Your task to perform on an android device: toggle notification dots Image 0: 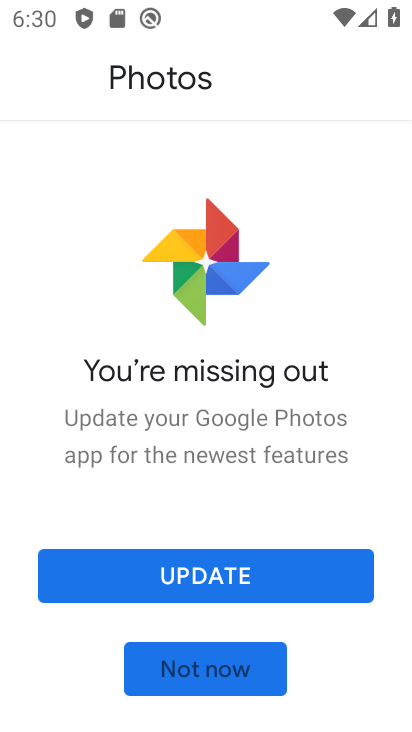
Step 0: press home button
Your task to perform on an android device: toggle notification dots Image 1: 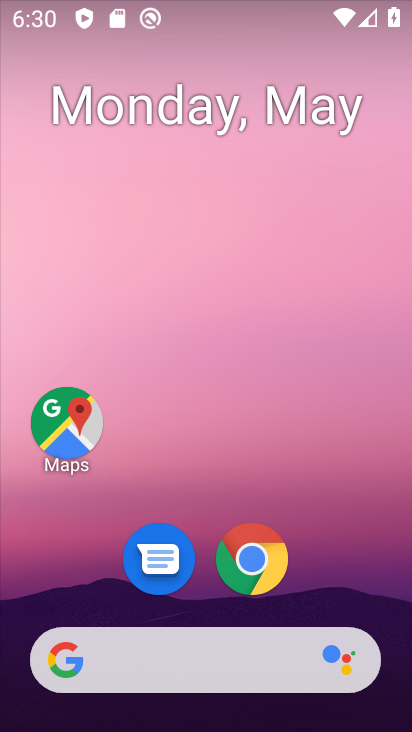
Step 1: drag from (395, 677) to (310, 11)
Your task to perform on an android device: toggle notification dots Image 2: 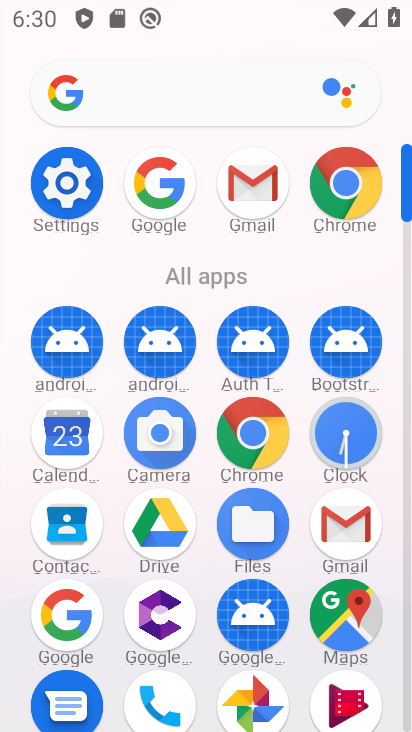
Step 2: click (72, 201)
Your task to perform on an android device: toggle notification dots Image 3: 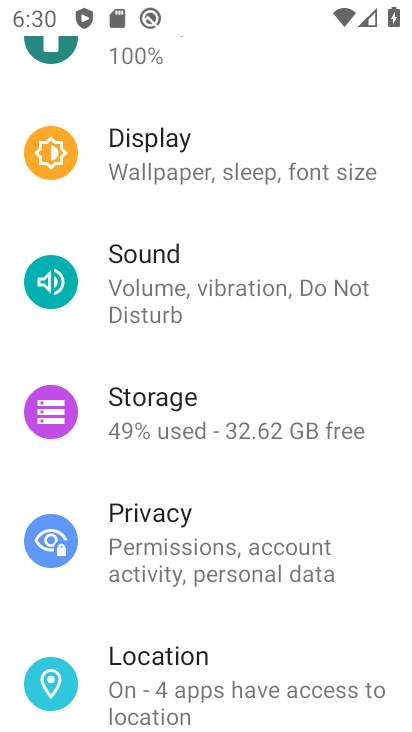
Step 3: drag from (302, 109) to (282, 551)
Your task to perform on an android device: toggle notification dots Image 4: 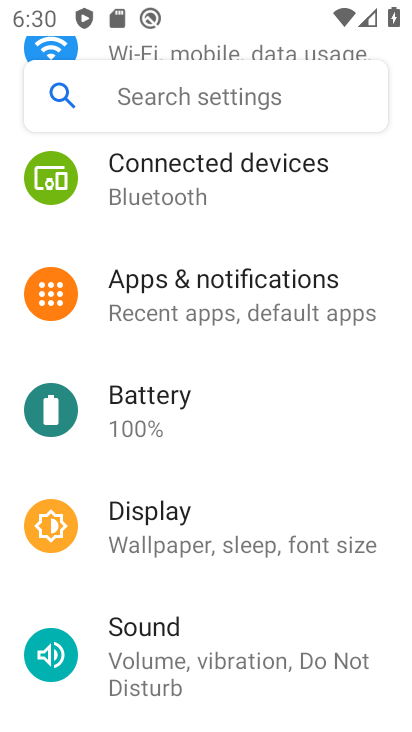
Step 4: click (239, 279)
Your task to perform on an android device: toggle notification dots Image 5: 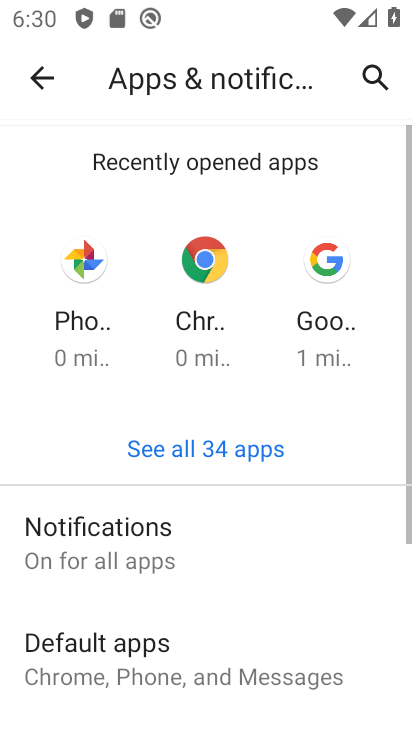
Step 5: click (198, 529)
Your task to perform on an android device: toggle notification dots Image 6: 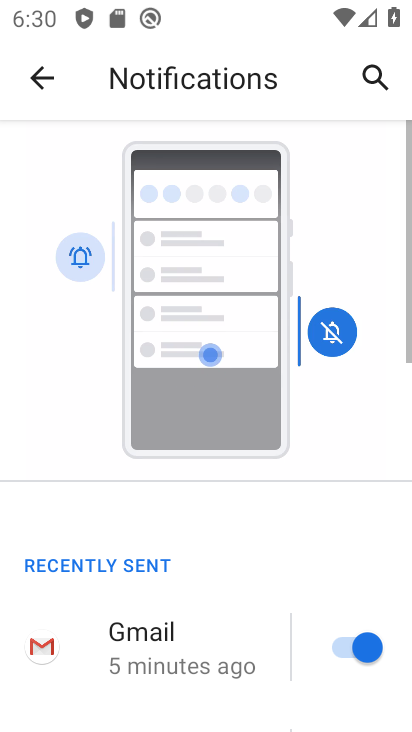
Step 6: drag from (160, 640) to (234, 19)
Your task to perform on an android device: toggle notification dots Image 7: 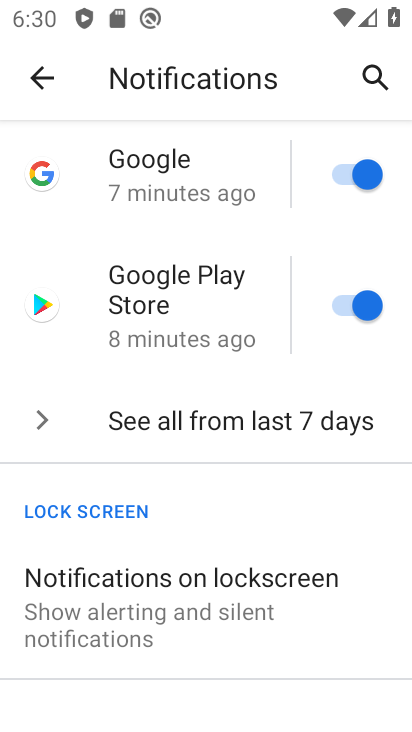
Step 7: drag from (198, 594) to (198, 87)
Your task to perform on an android device: toggle notification dots Image 8: 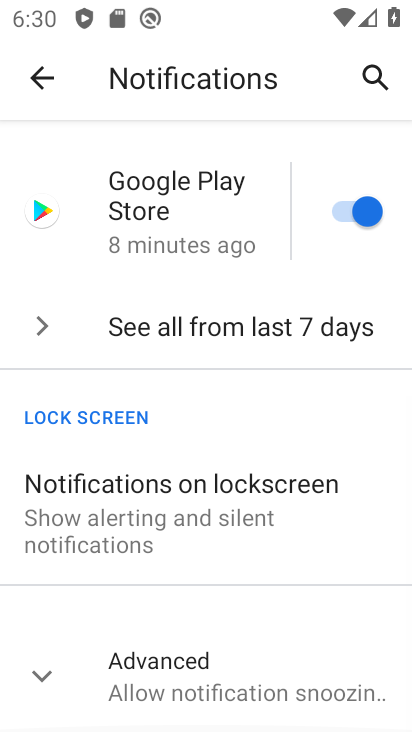
Step 8: click (138, 686)
Your task to perform on an android device: toggle notification dots Image 9: 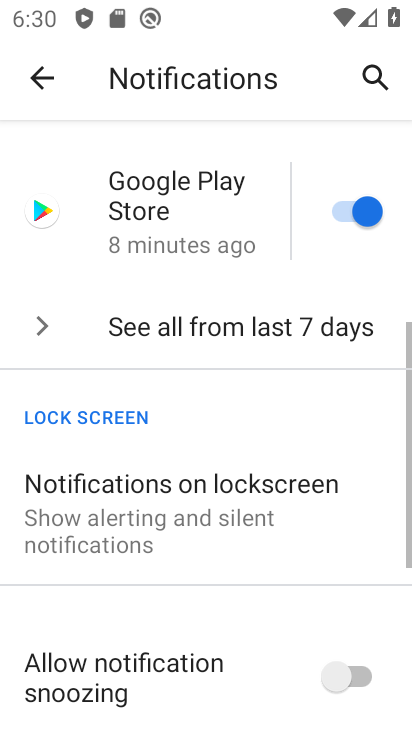
Step 9: drag from (138, 686) to (217, 163)
Your task to perform on an android device: toggle notification dots Image 10: 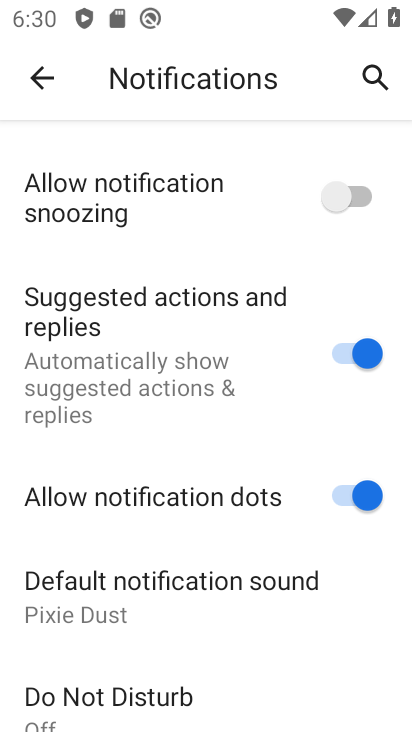
Step 10: drag from (172, 634) to (214, 151)
Your task to perform on an android device: toggle notification dots Image 11: 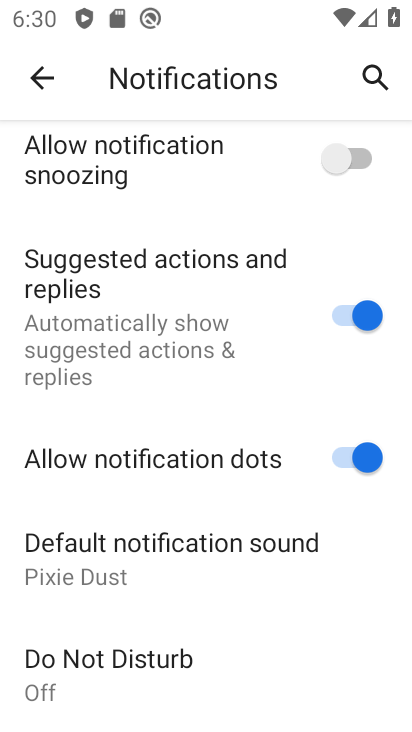
Step 11: click (205, 471)
Your task to perform on an android device: toggle notification dots Image 12: 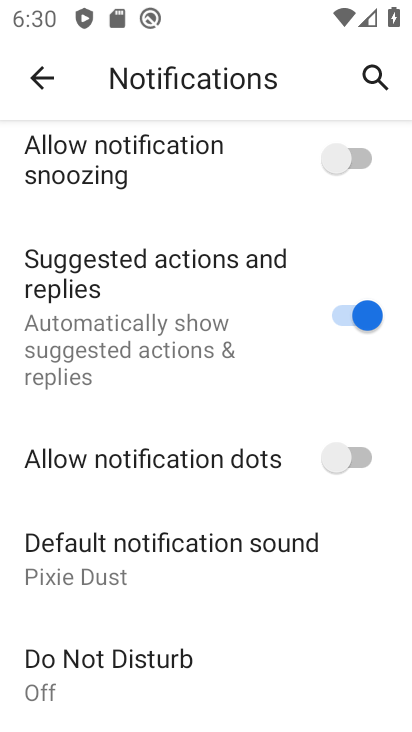
Step 12: task complete